Your task to perform on an android device: change the clock display to show seconds Image 0: 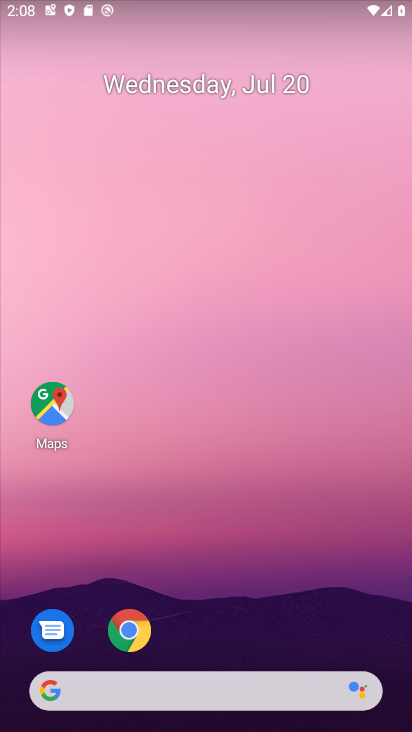
Step 0: drag from (370, 618) to (386, 101)
Your task to perform on an android device: change the clock display to show seconds Image 1: 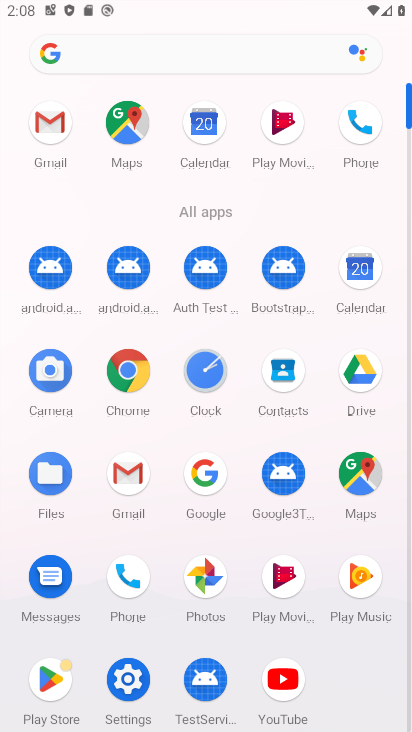
Step 1: click (214, 365)
Your task to perform on an android device: change the clock display to show seconds Image 2: 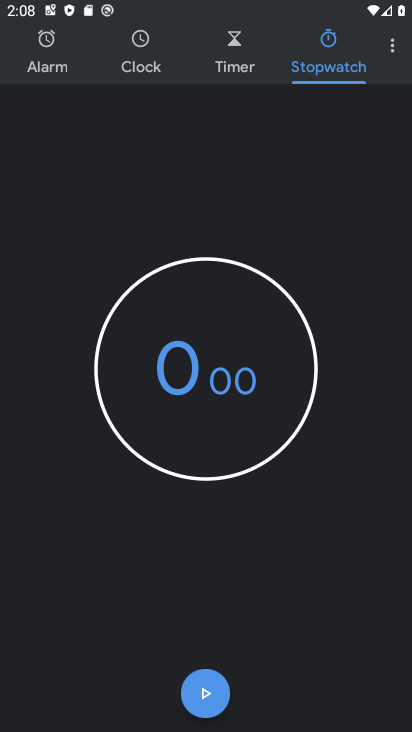
Step 2: click (397, 51)
Your task to perform on an android device: change the clock display to show seconds Image 3: 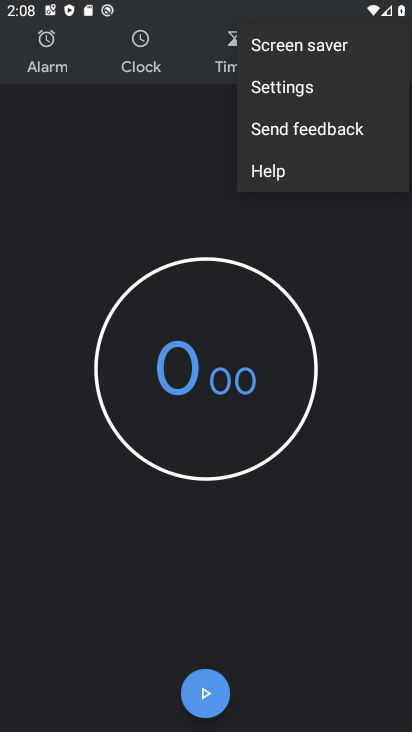
Step 3: click (332, 94)
Your task to perform on an android device: change the clock display to show seconds Image 4: 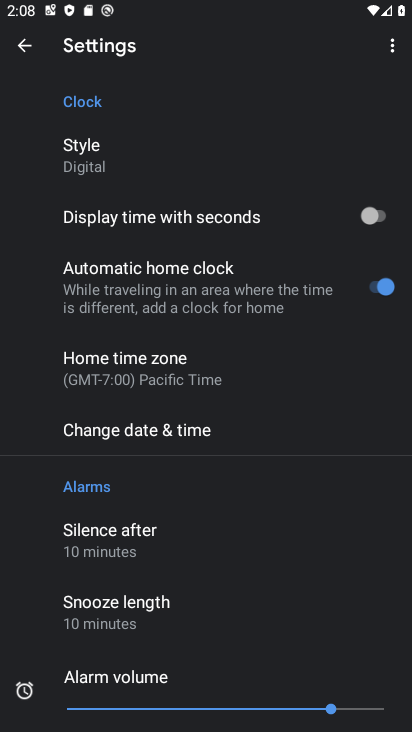
Step 4: drag from (319, 436) to (333, 347)
Your task to perform on an android device: change the clock display to show seconds Image 5: 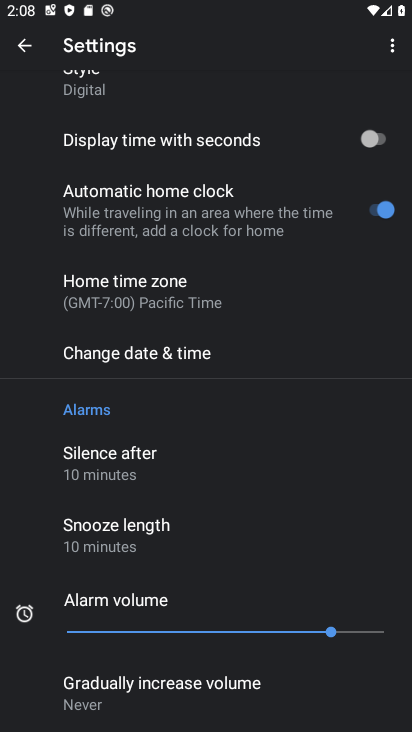
Step 5: drag from (323, 468) to (329, 304)
Your task to perform on an android device: change the clock display to show seconds Image 6: 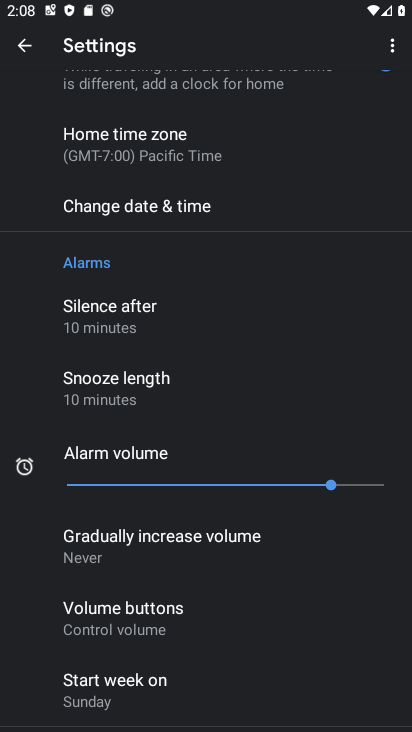
Step 6: drag from (320, 390) to (328, 272)
Your task to perform on an android device: change the clock display to show seconds Image 7: 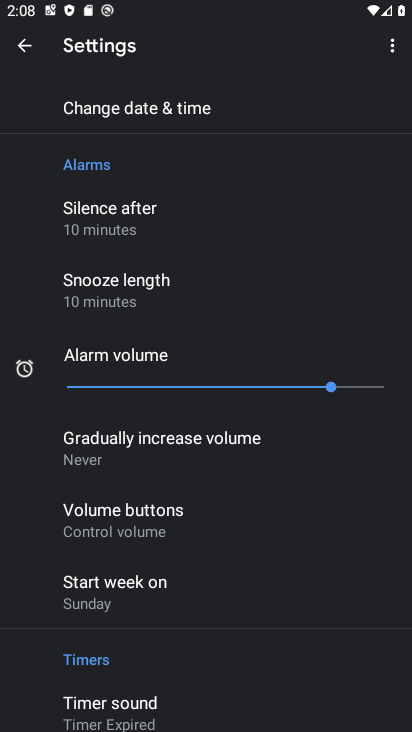
Step 7: drag from (336, 193) to (337, 301)
Your task to perform on an android device: change the clock display to show seconds Image 8: 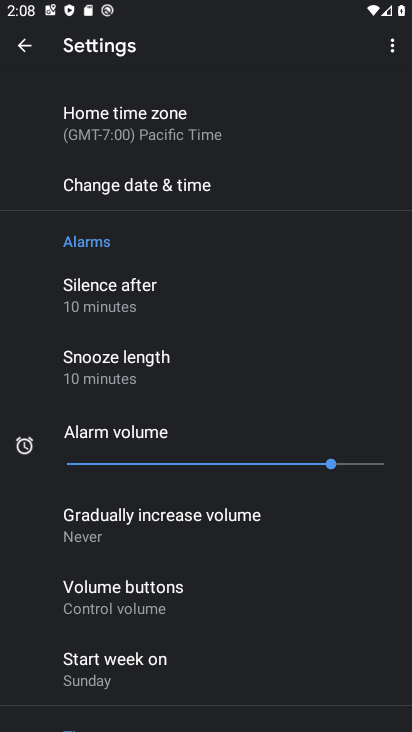
Step 8: drag from (347, 189) to (330, 309)
Your task to perform on an android device: change the clock display to show seconds Image 9: 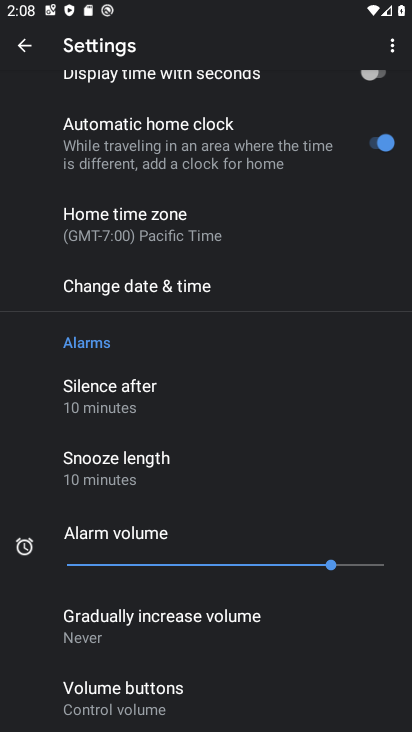
Step 9: drag from (323, 192) to (326, 339)
Your task to perform on an android device: change the clock display to show seconds Image 10: 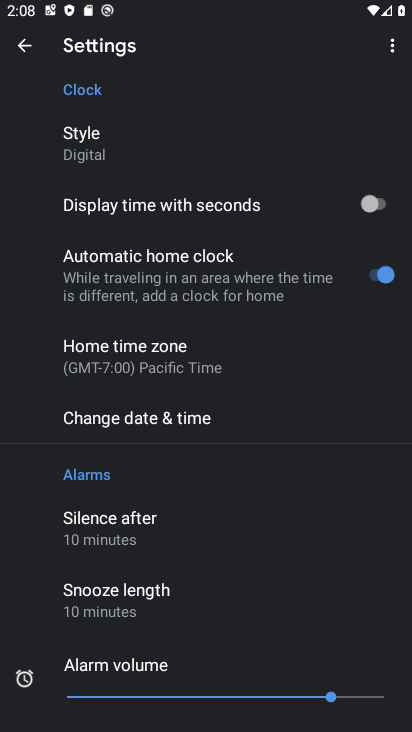
Step 10: drag from (306, 172) to (293, 326)
Your task to perform on an android device: change the clock display to show seconds Image 11: 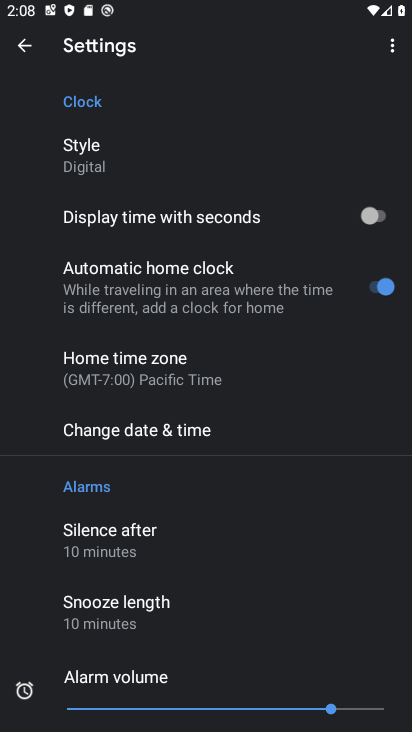
Step 11: click (364, 222)
Your task to perform on an android device: change the clock display to show seconds Image 12: 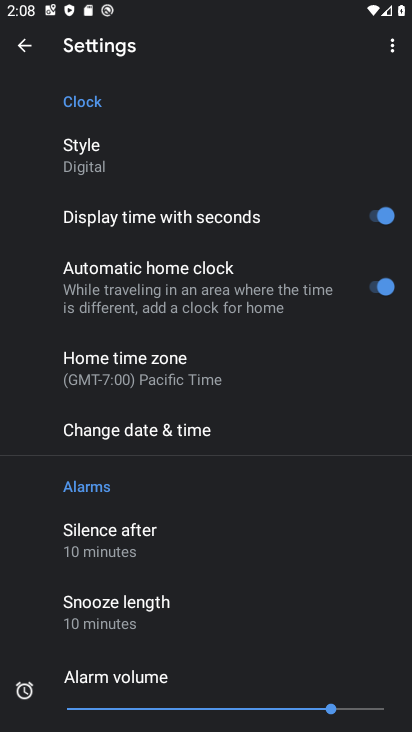
Step 12: task complete